Your task to perform on an android device: turn on wifi Image 0: 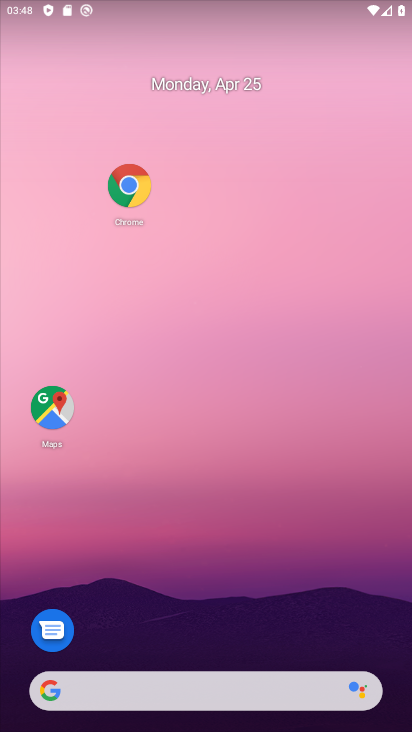
Step 0: drag from (228, 662) to (256, 194)
Your task to perform on an android device: turn on wifi Image 1: 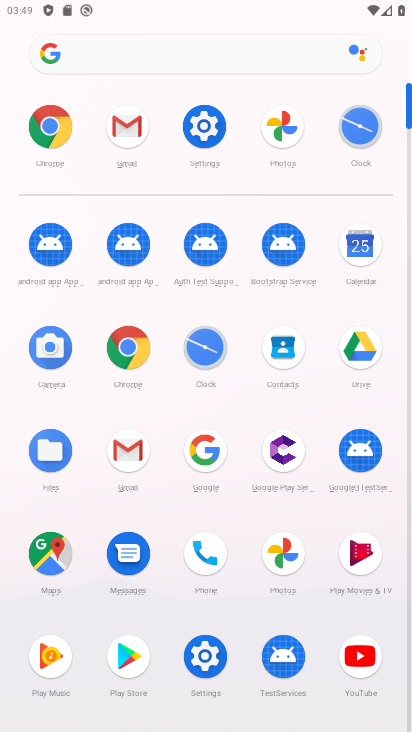
Step 1: click (205, 662)
Your task to perform on an android device: turn on wifi Image 2: 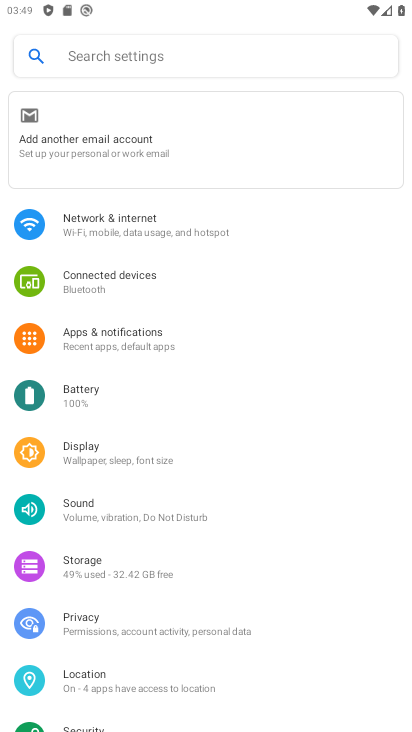
Step 2: click (137, 215)
Your task to perform on an android device: turn on wifi Image 3: 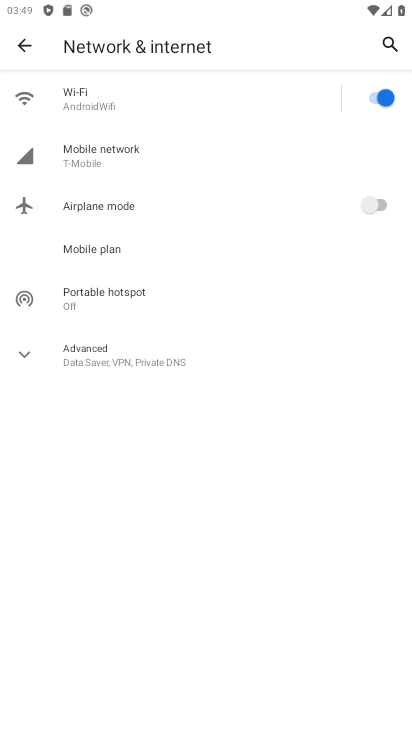
Step 3: task complete